Your task to perform on an android device: Go to battery settings Image 0: 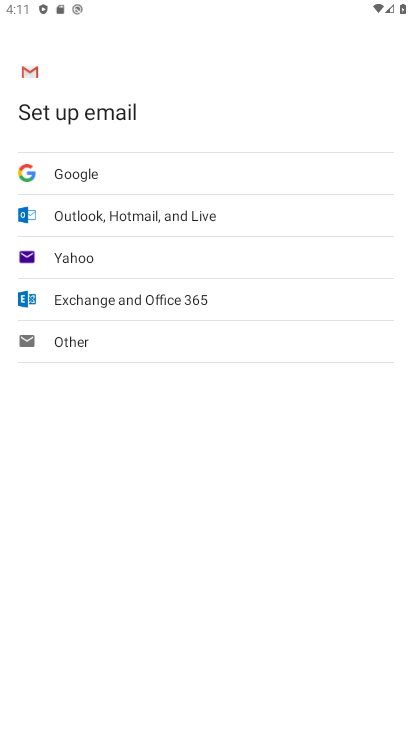
Step 0: press home button
Your task to perform on an android device: Go to battery settings Image 1: 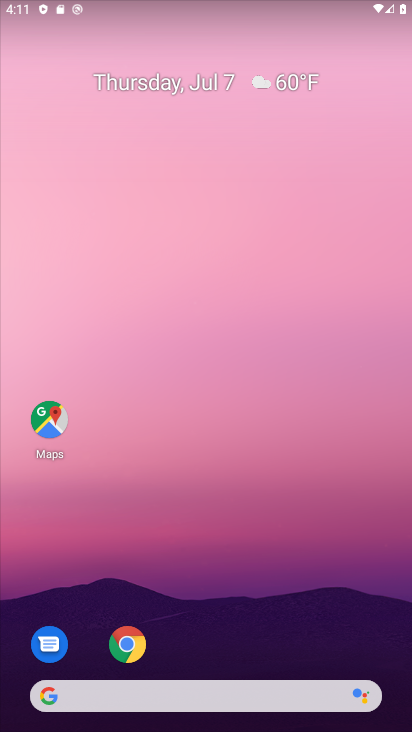
Step 1: drag from (229, 636) to (156, 33)
Your task to perform on an android device: Go to battery settings Image 2: 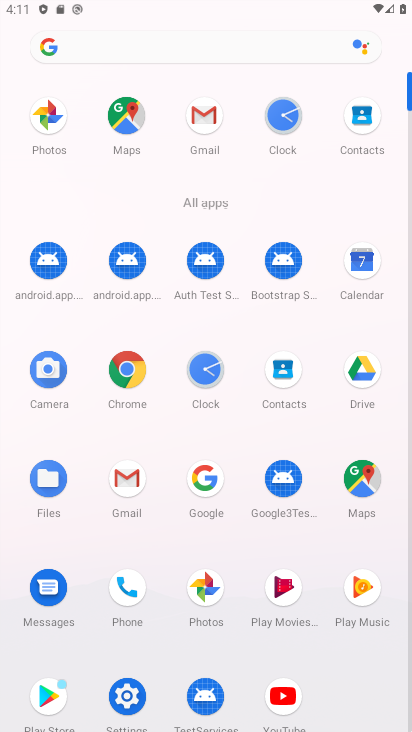
Step 2: click (125, 701)
Your task to perform on an android device: Go to battery settings Image 3: 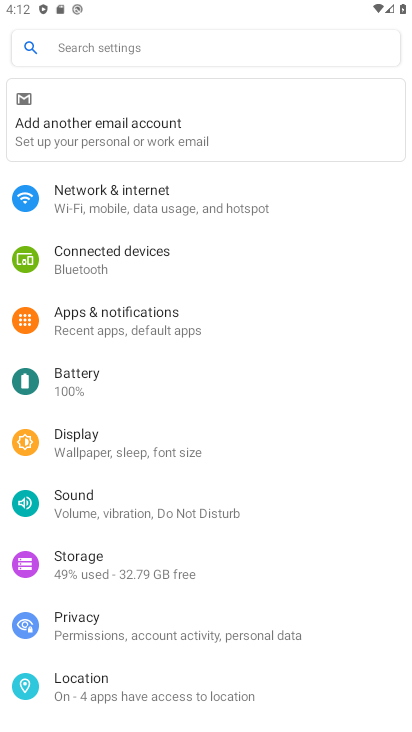
Step 3: click (143, 386)
Your task to perform on an android device: Go to battery settings Image 4: 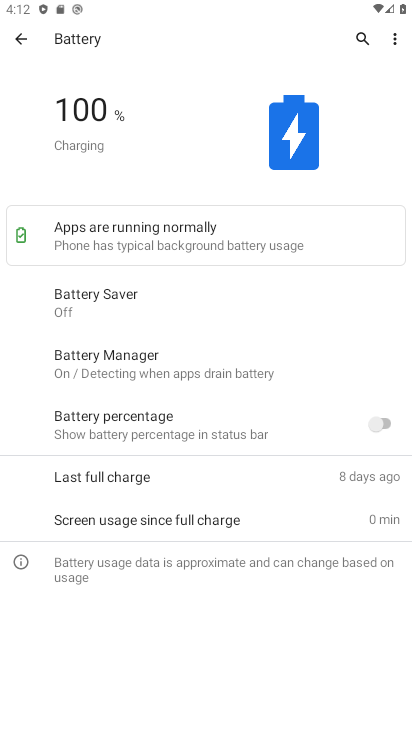
Step 4: task complete